Your task to perform on an android device: open the mobile data screen to see how much data has been used Image 0: 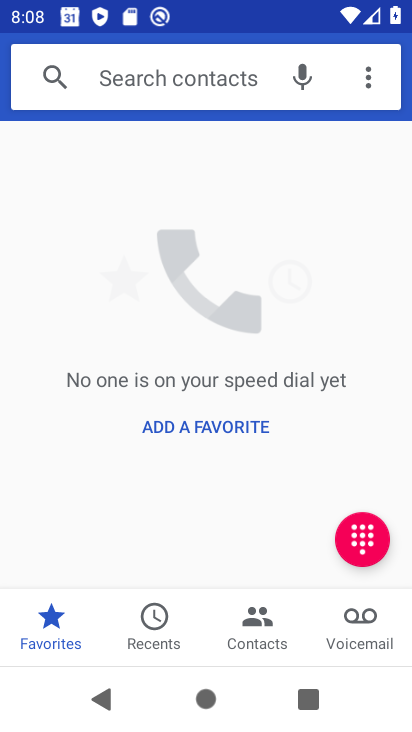
Step 0: press home button
Your task to perform on an android device: open the mobile data screen to see how much data has been used Image 1: 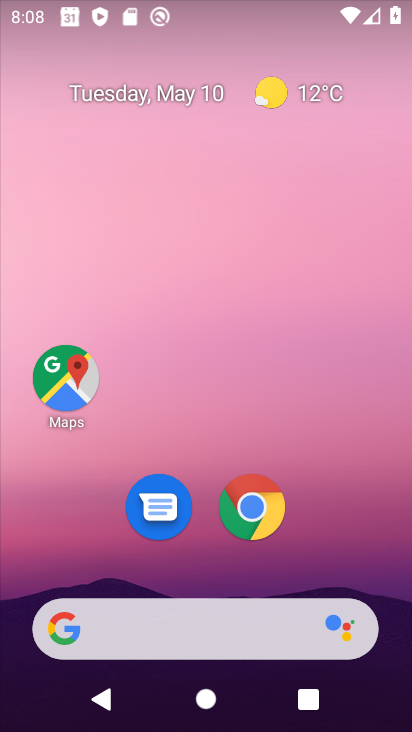
Step 1: drag from (192, 584) to (295, 62)
Your task to perform on an android device: open the mobile data screen to see how much data has been used Image 2: 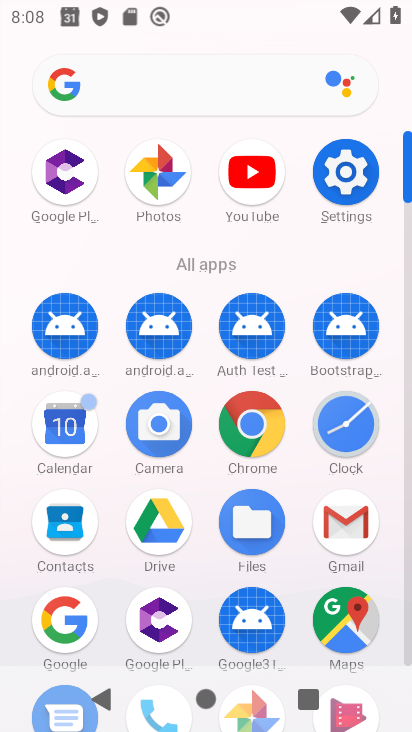
Step 2: drag from (120, 664) to (244, 287)
Your task to perform on an android device: open the mobile data screen to see how much data has been used Image 3: 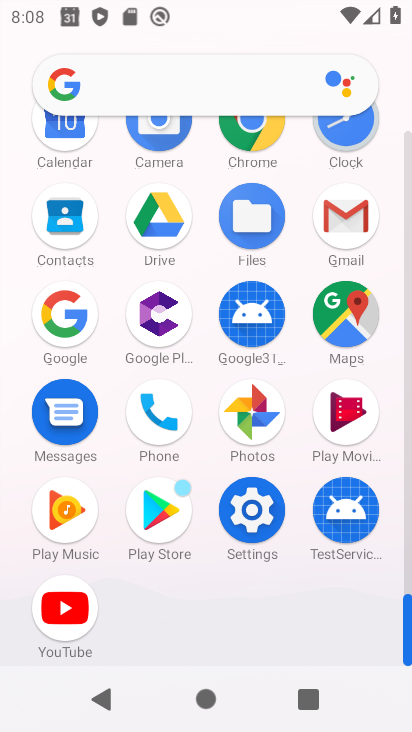
Step 3: click (240, 504)
Your task to perform on an android device: open the mobile data screen to see how much data has been used Image 4: 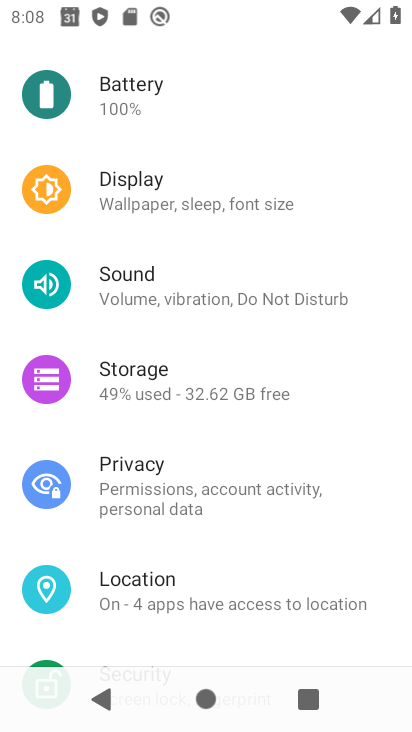
Step 4: drag from (200, 183) to (157, 625)
Your task to perform on an android device: open the mobile data screen to see how much data has been used Image 5: 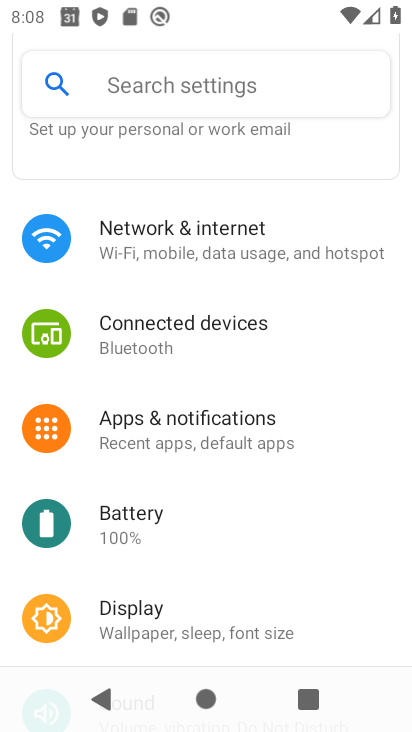
Step 5: click (202, 255)
Your task to perform on an android device: open the mobile data screen to see how much data has been used Image 6: 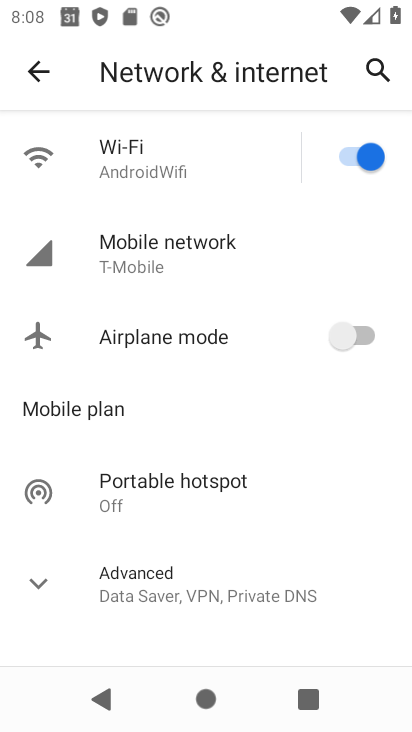
Step 6: click (201, 263)
Your task to perform on an android device: open the mobile data screen to see how much data has been used Image 7: 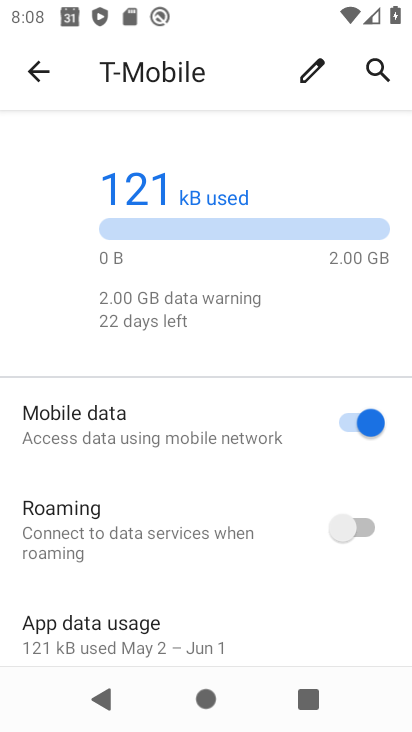
Step 7: task complete